Your task to perform on an android device: Open calendar and show me the second week of next month Image 0: 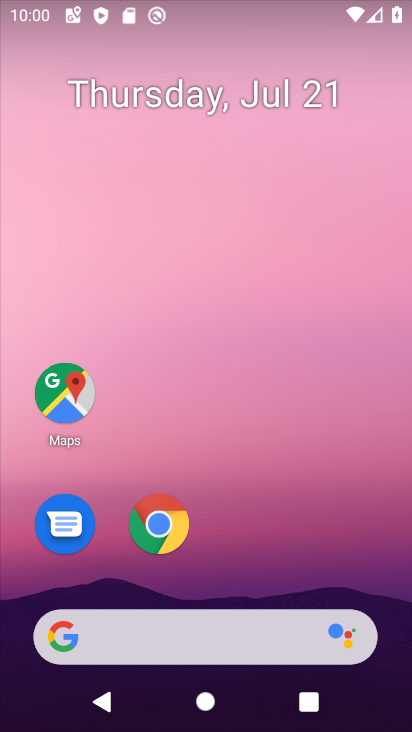
Step 0: press home button
Your task to perform on an android device: Open calendar and show me the second week of next month Image 1: 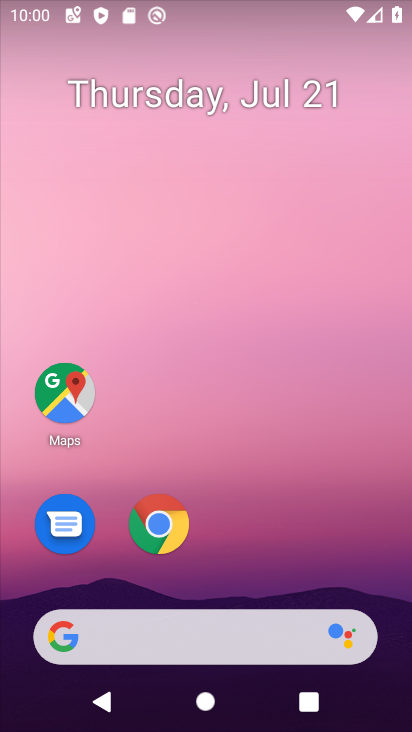
Step 1: drag from (189, 618) to (178, 90)
Your task to perform on an android device: Open calendar and show me the second week of next month Image 2: 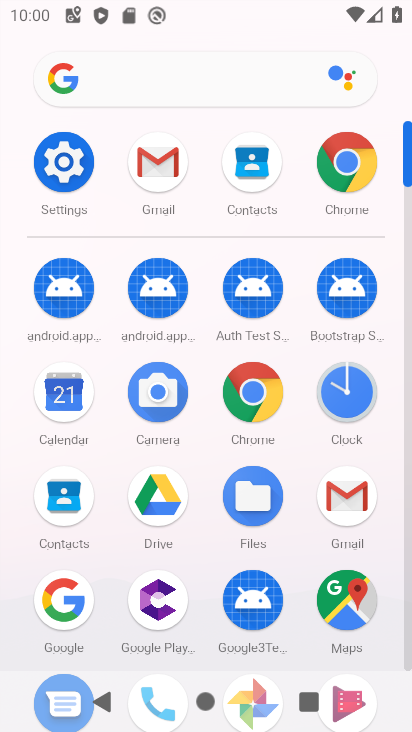
Step 2: click (50, 390)
Your task to perform on an android device: Open calendar and show me the second week of next month Image 3: 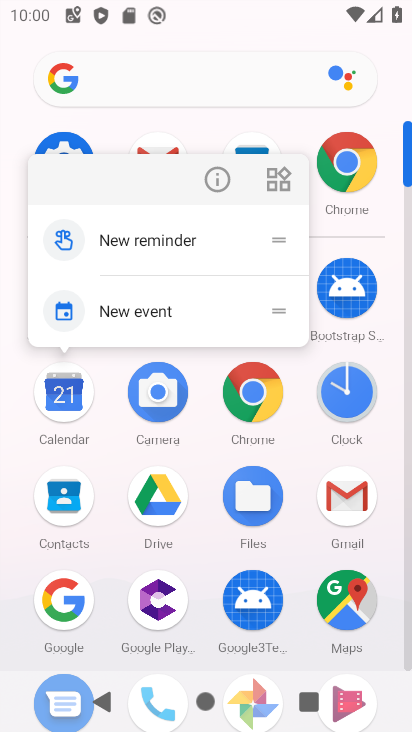
Step 3: click (67, 404)
Your task to perform on an android device: Open calendar and show me the second week of next month Image 4: 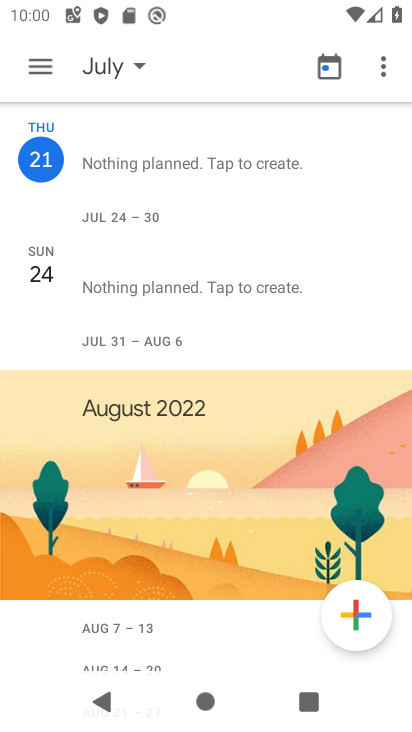
Step 4: click (107, 64)
Your task to perform on an android device: Open calendar and show me the second week of next month Image 5: 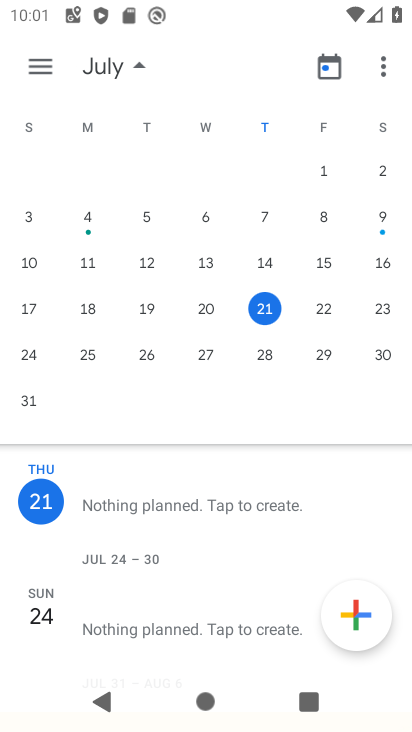
Step 5: drag from (372, 231) to (3, 283)
Your task to perform on an android device: Open calendar and show me the second week of next month Image 6: 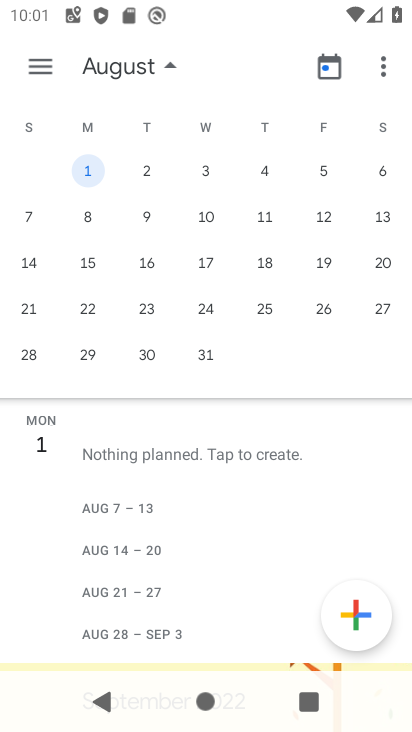
Step 6: click (27, 221)
Your task to perform on an android device: Open calendar and show me the second week of next month Image 7: 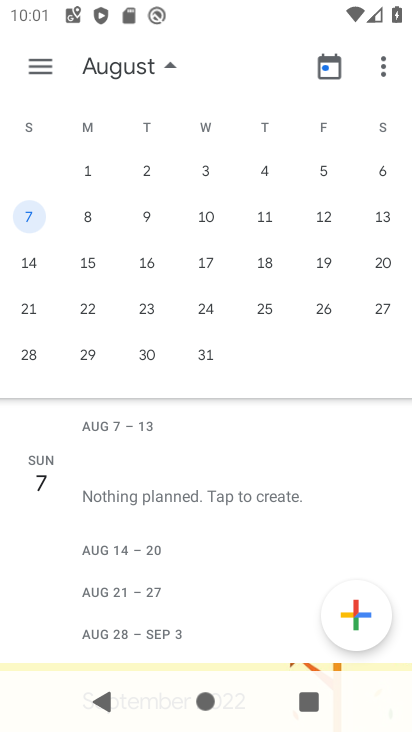
Step 7: click (40, 70)
Your task to perform on an android device: Open calendar and show me the second week of next month Image 8: 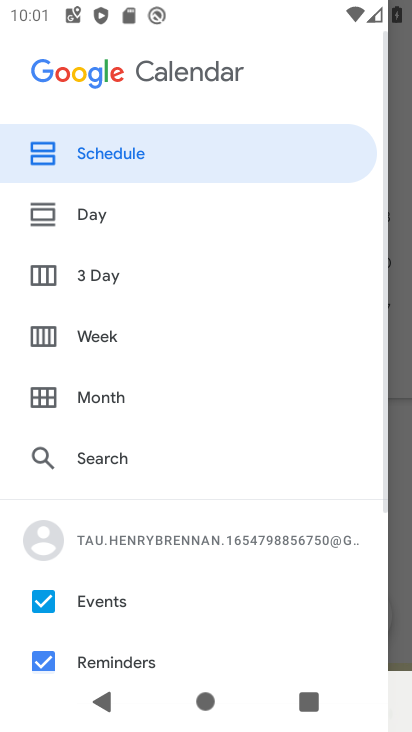
Step 8: click (110, 334)
Your task to perform on an android device: Open calendar and show me the second week of next month Image 9: 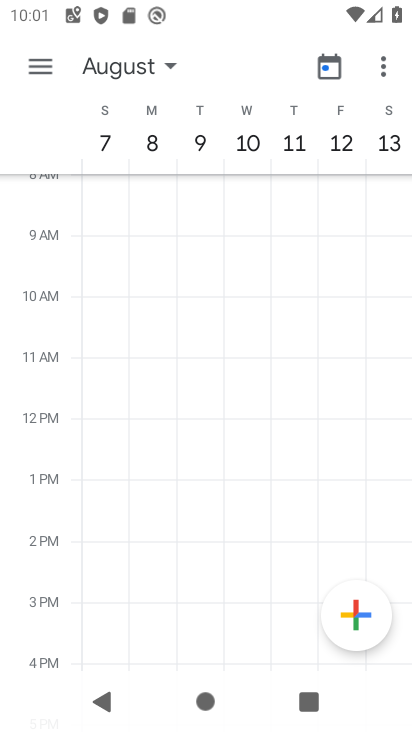
Step 9: task complete